Your task to perform on an android device: make emails show in primary in the gmail app Image 0: 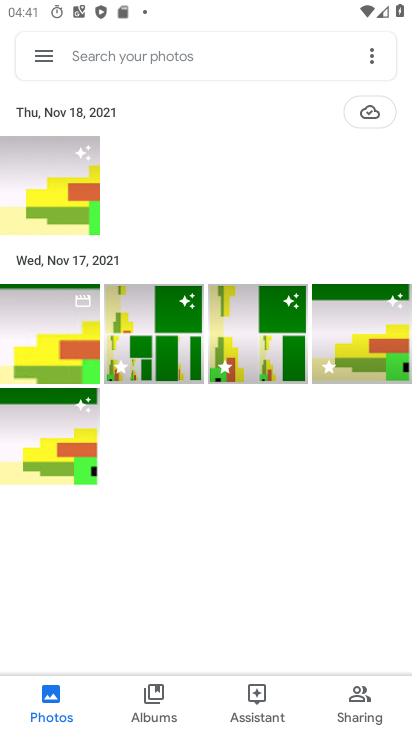
Step 0: press back button
Your task to perform on an android device: make emails show in primary in the gmail app Image 1: 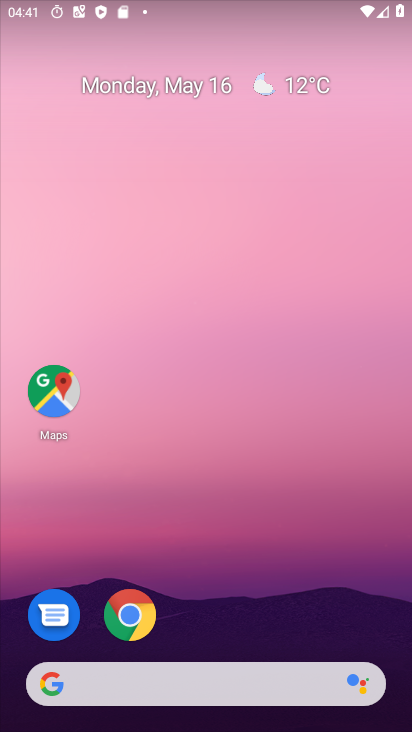
Step 1: drag from (251, 649) to (110, 6)
Your task to perform on an android device: make emails show in primary in the gmail app Image 2: 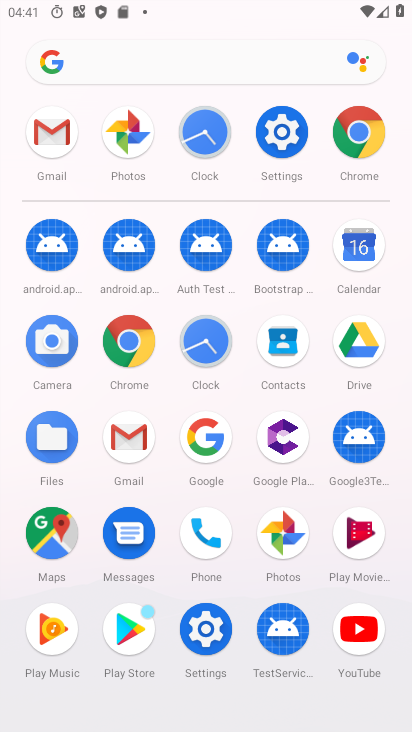
Step 2: drag from (84, 54) to (85, 13)
Your task to perform on an android device: make emails show in primary in the gmail app Image 3: 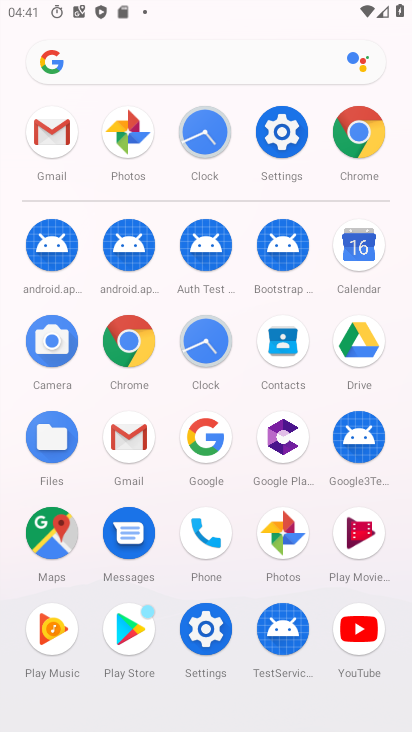
Step 3: click (129, 440)
Your task to perform on an android device: make emails show in primary in the gmail app Image 4: 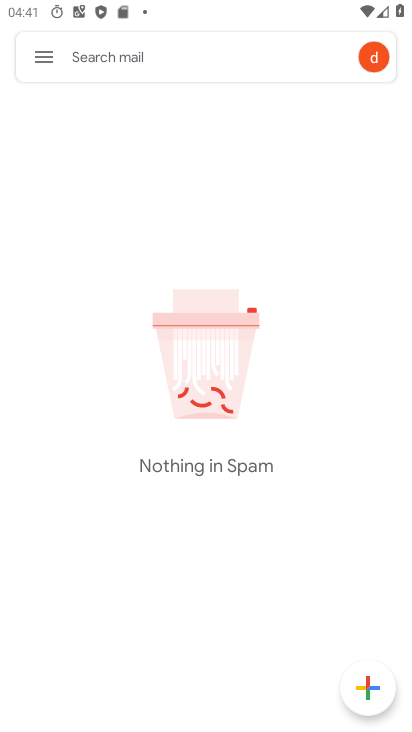
Step 4: click (197, 371)
Your task to perform on an android device: make emails show in primary in the gmail app Image 5: 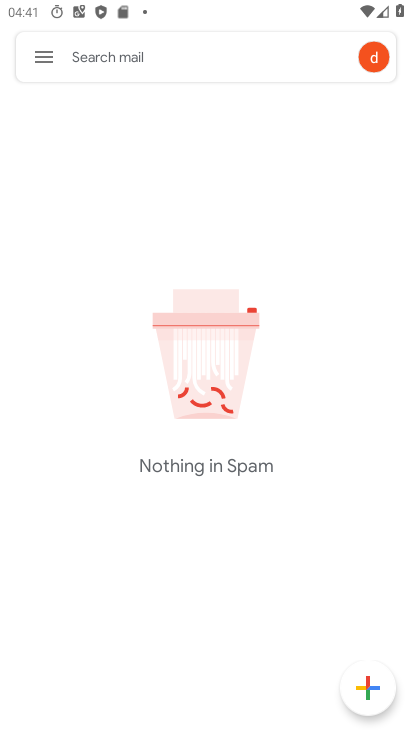
Step 5: click (197, 374)
Your task to perform on an android device: make emails show in primary in the gmail app Image 6: 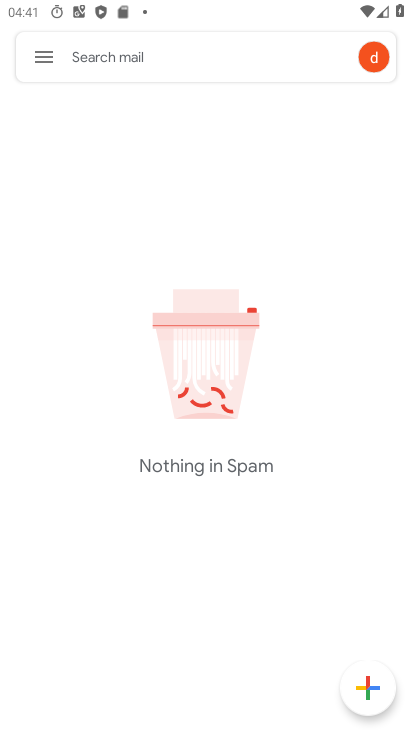
Step 6: click (197, 374)
Your task to perform on an android device: make emails show in primary in the gmail app Image 7: 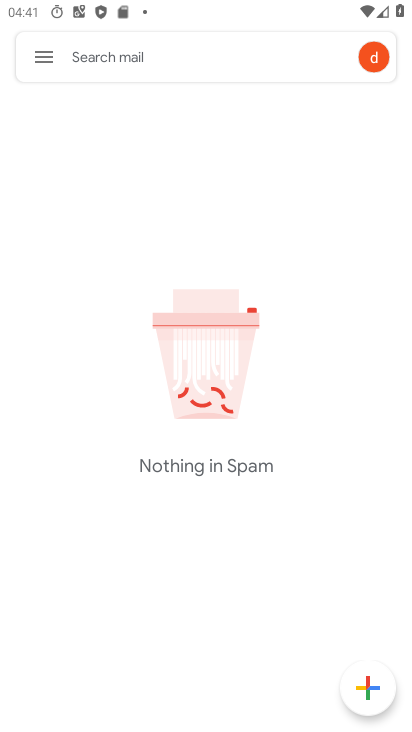
Step 7: click (234, 349)
Your task to perform on an android device: make emails show in primary in the gmail app Image 8: 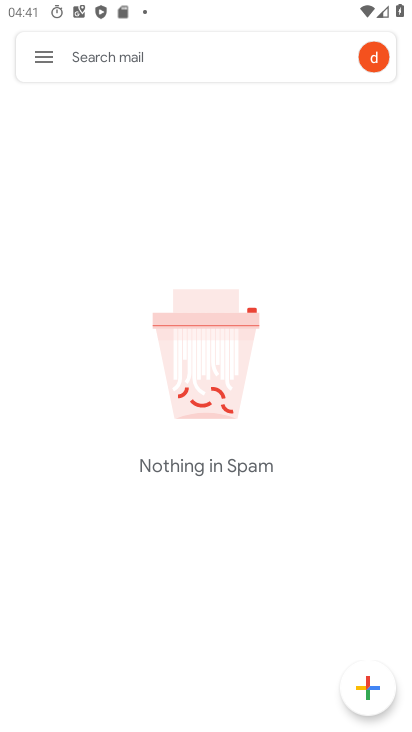
Step 8: click (36, 62)
Your task to perform on an android device: make emails show in primary in the gmail app Image 9: 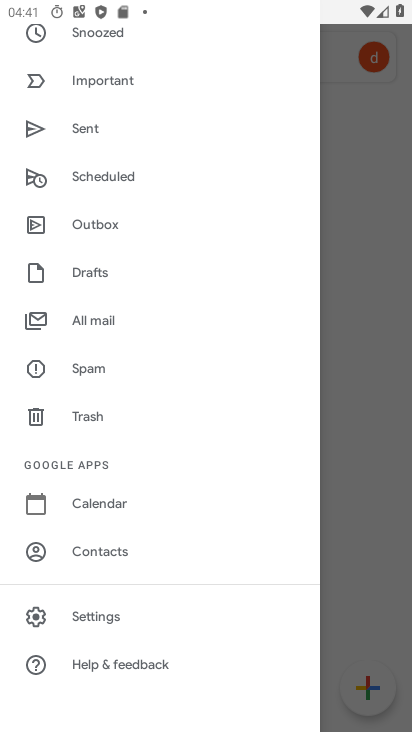
Step 9: click (91, 607)
Your task to perform on an android device: make emails show in primary in the gmail app Image 10: 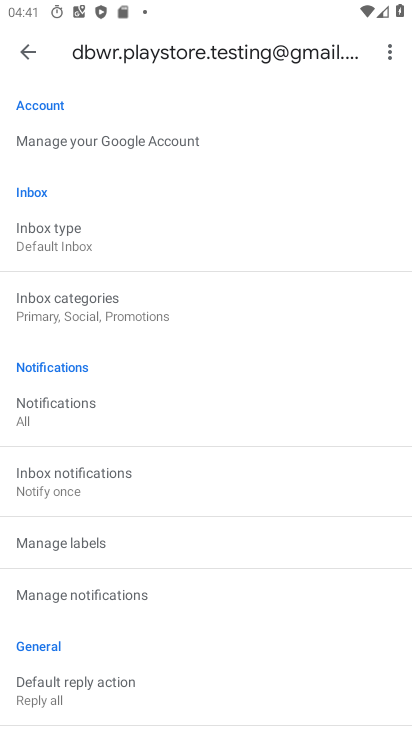
Step 10: click (43, 238)
Your task to perform on an android device: make emails show in primary in the gmail app Image 11: 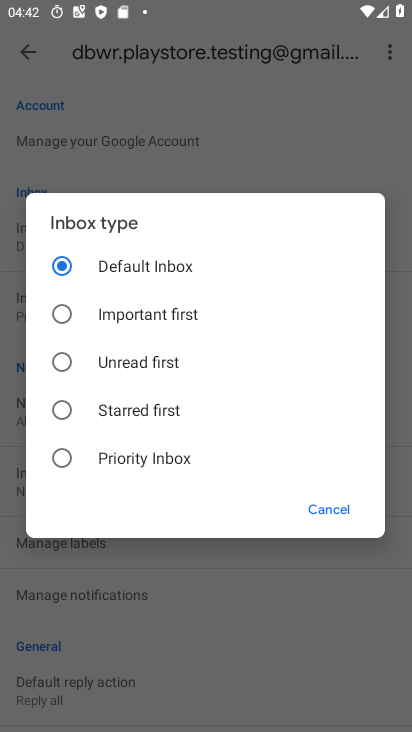
Step 11: click (61, 449)
Your task to perform on an android device: make emails show in primary in the gmail app Image 12: 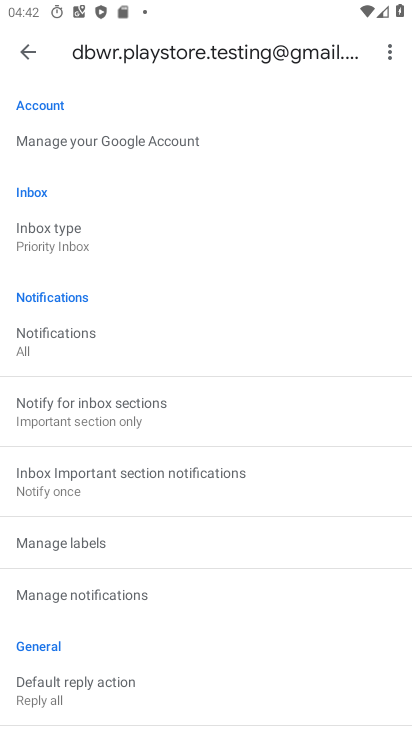
Step 12: click (40, 242)
Your task to perform on an android device: make emails show in primary in the gmail app Image 13: 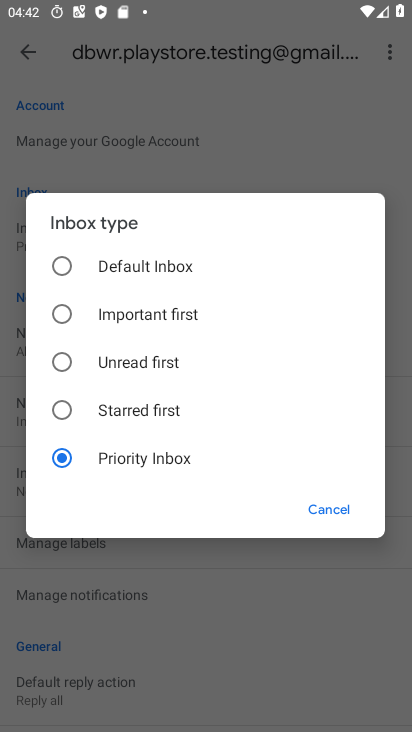
Step 13: click (61, 259)
Your task to perform on an android device: make emails show in primary in the gmail app Image 14: 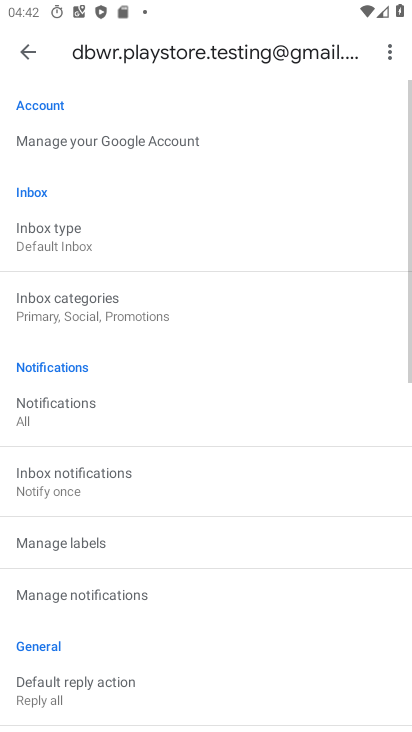
Step 14: click (78, 306)
Your task to perform on an android device: make emails show in primary in the gmail app Image 15: 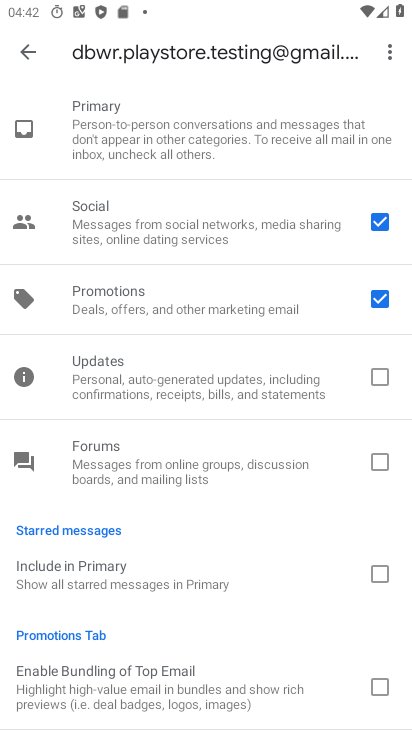
Step 15: click (70, 125)
Your task to perform on an android device: make emails show in primary in the gmail app Image 16: 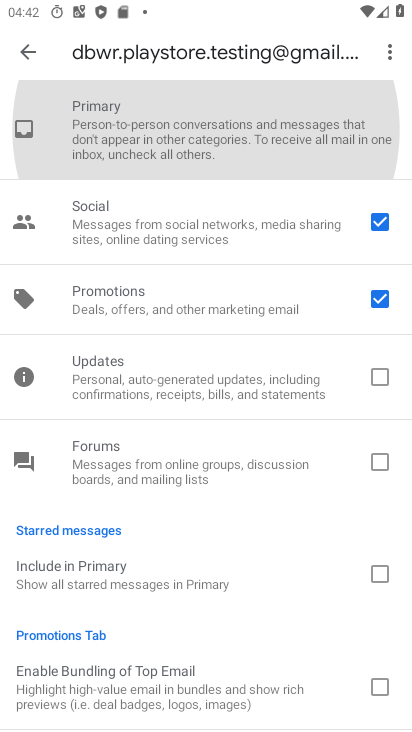
Step 16: click (73, 125)
Your task to perform on an android device: make emails show in primary in the gmail app Image 17: 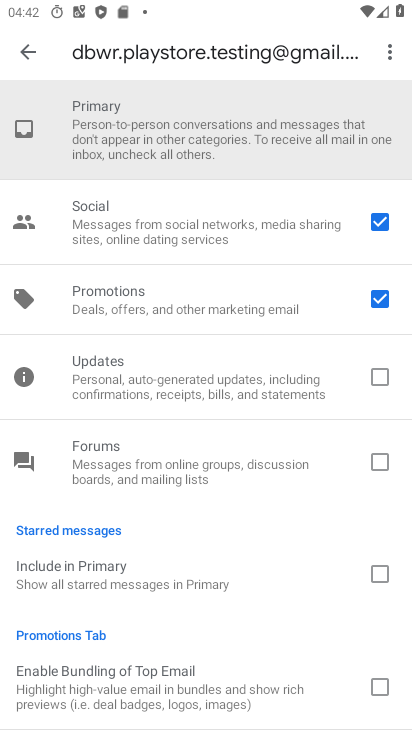
Step 17: click (73, 125)
Your task to perform on an android device: make emails show in primary in the gmail app Image 18: 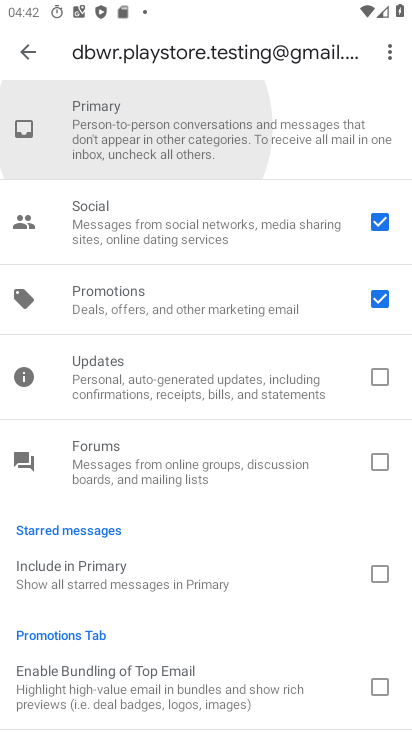
Step 18: click (73, 125)
Your task to perform on an android device: make emails show in primary in the gmail app Image 19: 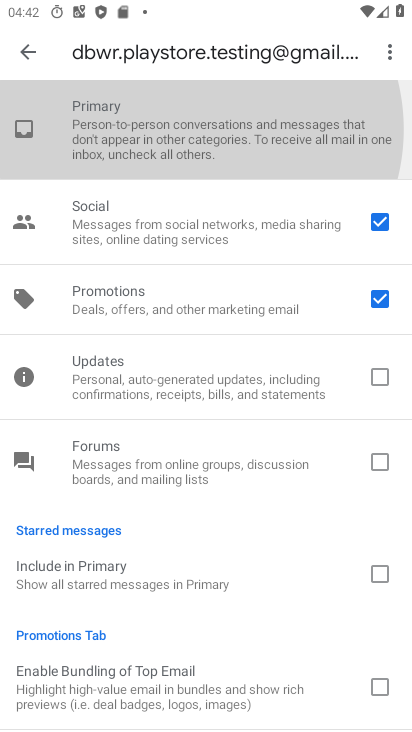
Step 19: click (74, 126)
Your task to perform on an android device: make emails show in primary in the gmail app Image 20: 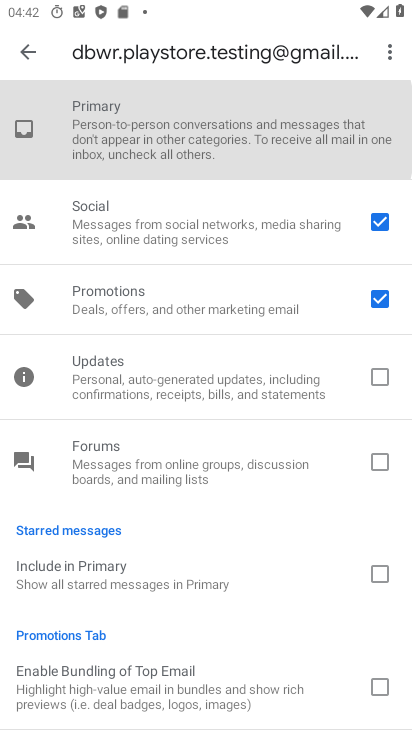
Step 20: click (74, 126)
Your task to perform on an android device: make emails show in primary in the gmail app Image 21: 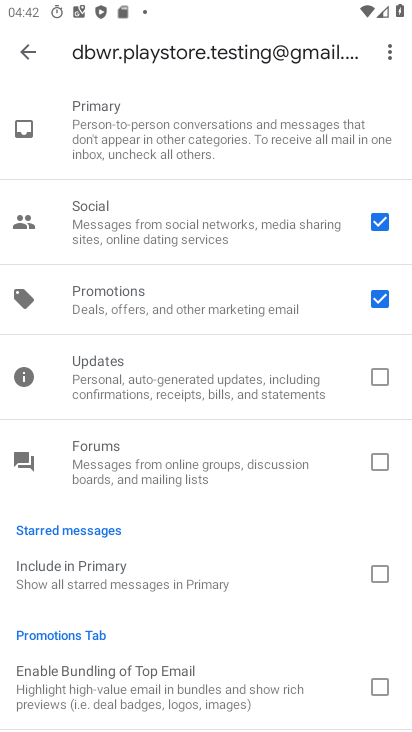
Step 21: task complete